Your task to perform on an android device: turn off notifications settings in the gmail app Image 0: 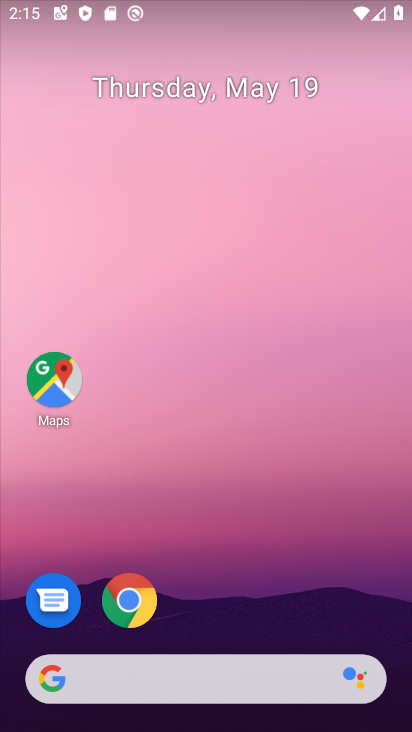
Step 0: drag from (244, 653) to (271, 261)
Your task to perform on an android device: turn off notifications settings in the gmail app Image 1: 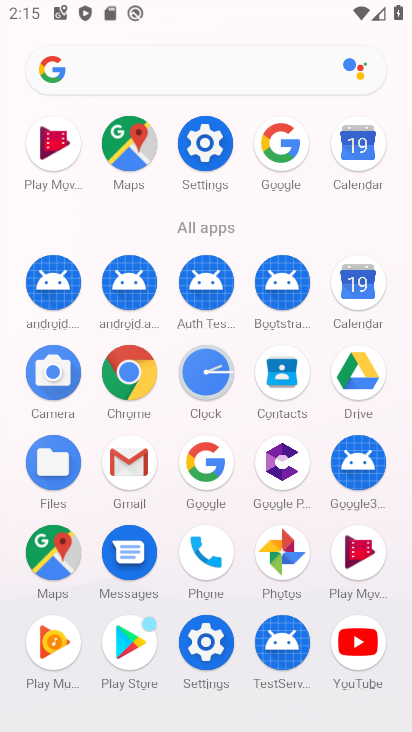
Step 1: click (128, 464)
Your task to perform on an android device: turn off notifications settings in the gmail app Image 2: 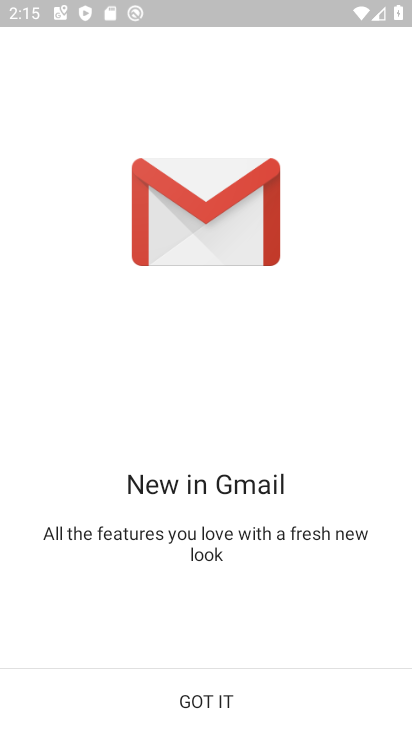
Step 2: click (211, 704)
Your task to perform on an android device: turn off notifications settings in the gmail app Image 3: 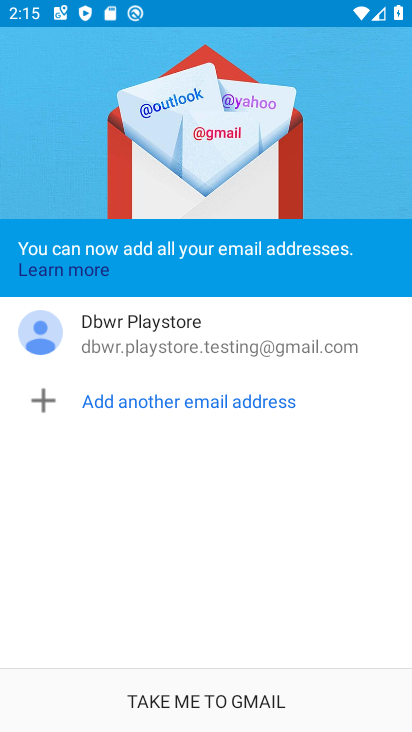
Step 3: click (211, 704)
Your task to perform on an android device: turn off notifications settings in the gmail app Image 4: 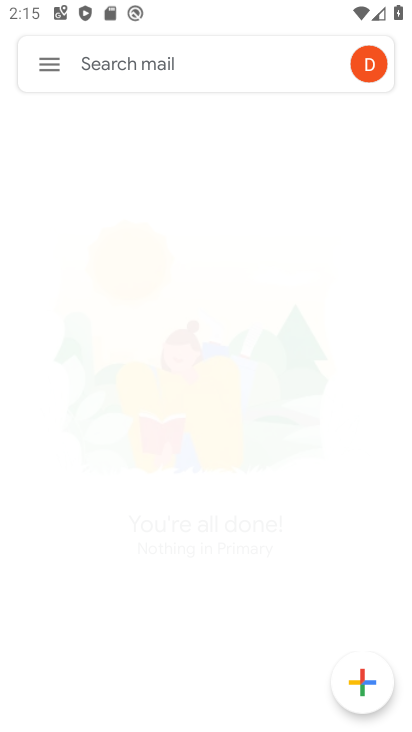
Step 4: click (58, 55)
Your task to perform on an android device: turn off notifications settings in the gmail app Image 5: 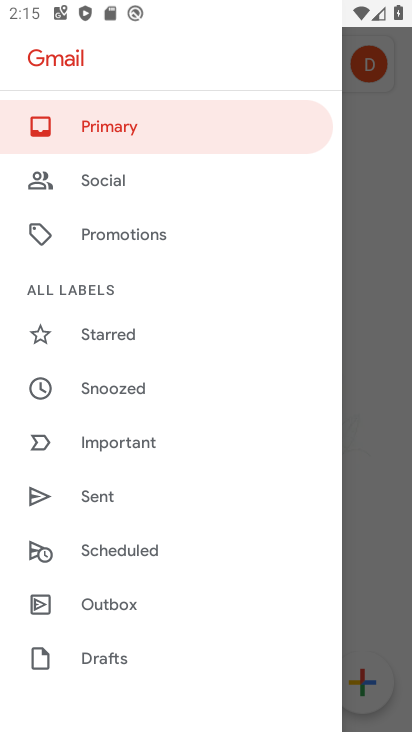
Step 5: drag from (134, 666) to (168, 246)
Your task to perform on an android device: turn off notifications settings in the gmail app Image 6: 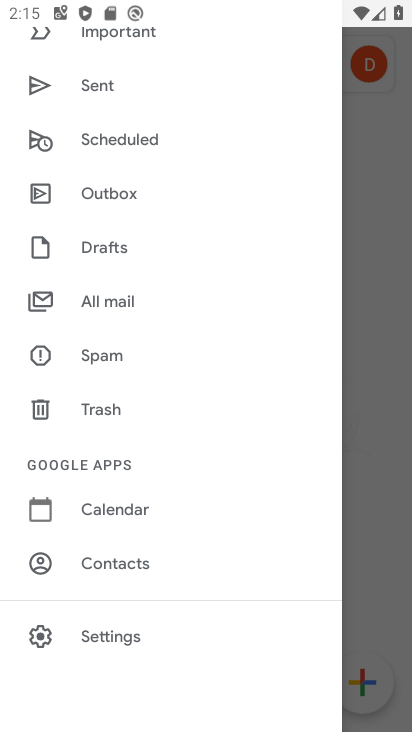
Step 6: click (110, 638)
Your task to perform on an android device: turn off notifications settings in the gmail app Image 7: 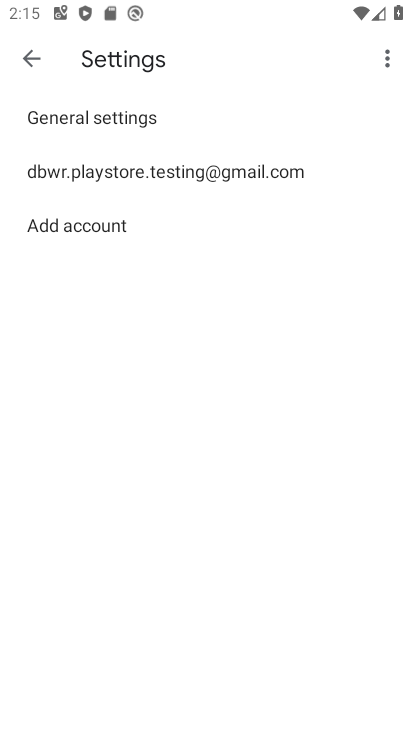
Step 7: click (95, 118)
Your task to perform on an android device: turn off notifications settings in the gmail app Image 8: 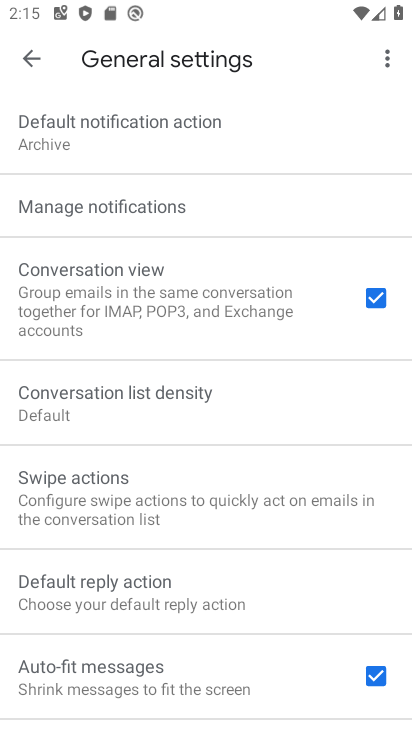
Step 8: click (129, 209)
Your task to perform on an android device: turn off notifications settings in the gmail app Image 9: 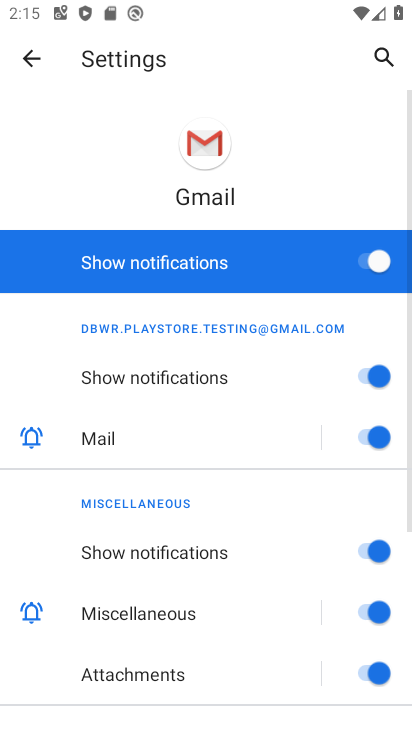
Step 9: click (369, 259)
Your task to perform on an android device: turn off notifications settings in the gmail app Image 10: 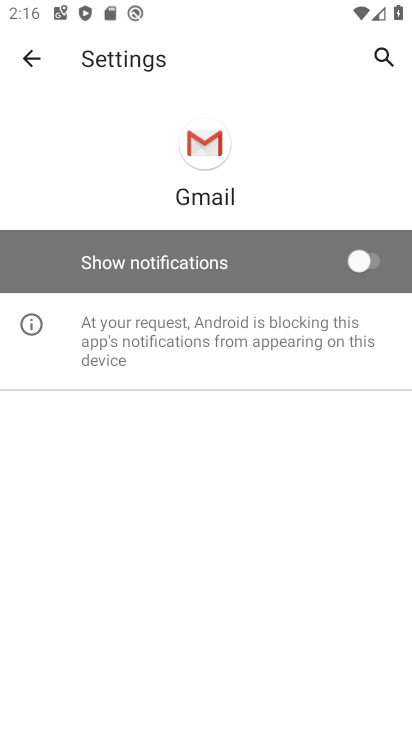
Step 10: task complete